Your task to perform on an android device: delete browsing data in the chrome app Image 0: 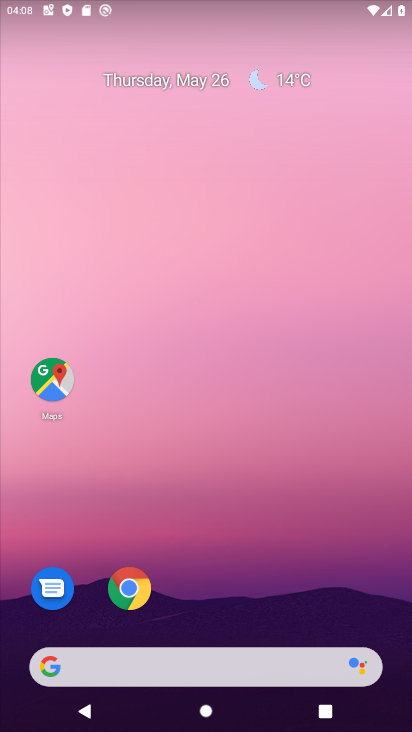
Step 0: click (126, 587)
Your task to perform on an android device: delete browsing data in the chrome app Image 1: 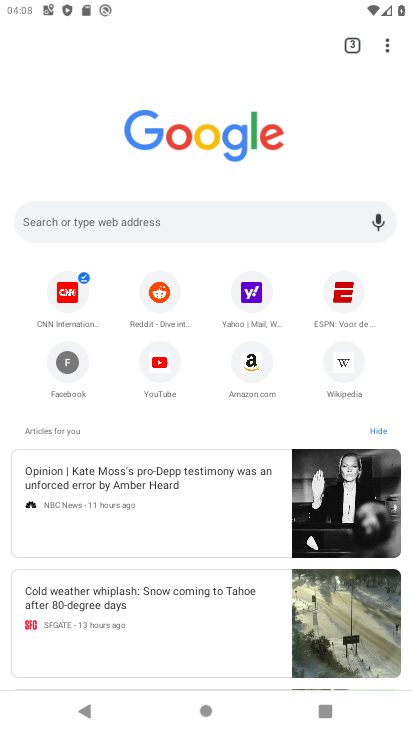
Step 1: click (387, 60)
Your task to perform on an android device: delete browsing data in the chrome app Image 2: 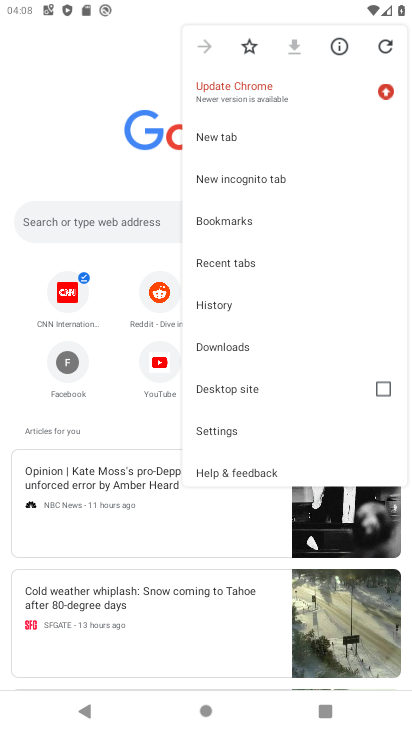
Step 2: click (268, 425)
Your task to perform on an android device: delete browsing data in the chrome app Image 3: 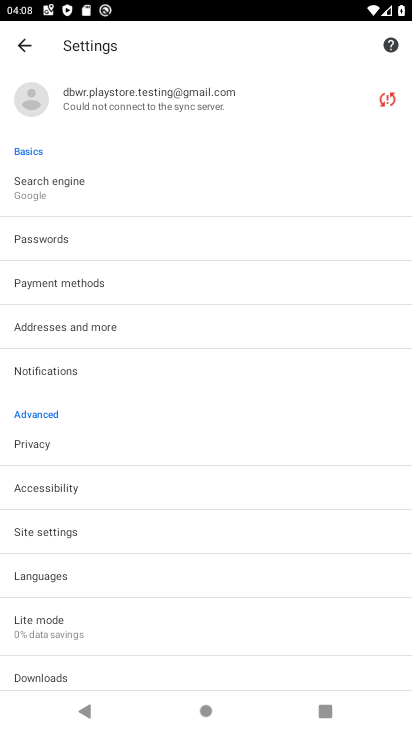
Step 3: click (22, 36)
Your task to perform on an android device: delete browsing data in the chrome app Image 4: 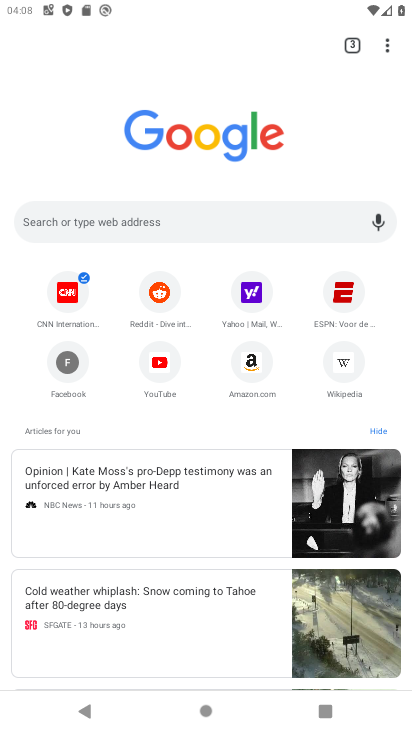
Step 4: click (391, 60)
Your task to perform on an android device: delete browsing data in the chrome app Image 5: 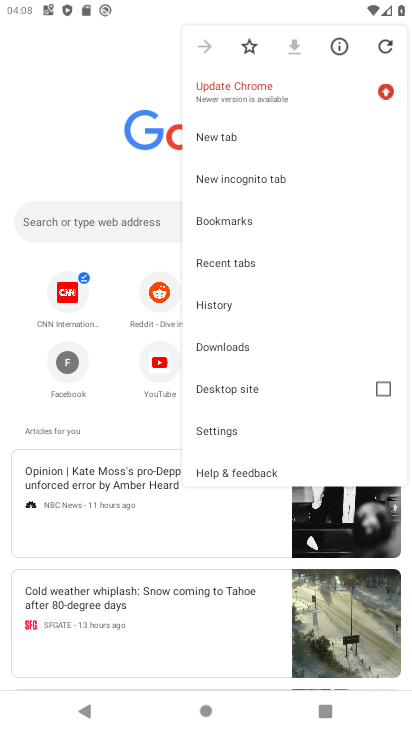
Step 5: click (241, 314)
Your task to perform on an android device: delete browsing data in the chrome app Image 6: 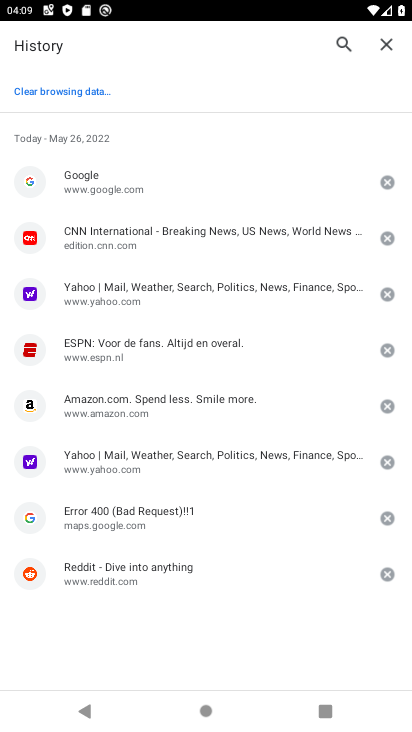
Step 6: click (153, 195)
Your task to perform on an android device: delete browsing data in the chrome app Image 7: 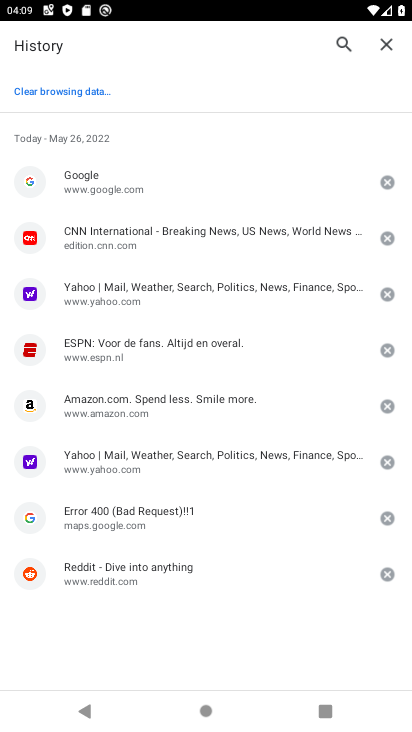
Step 7: task complete